Your task to perform on an android device: Open CNN.com Image 0: 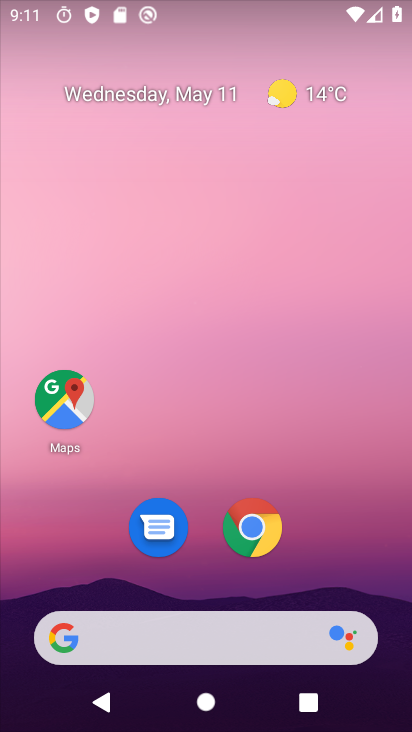
Step 0: drag from (249, 527) to (265, 89)
Your task to perform on an android device: Open CNN.com Image 1: 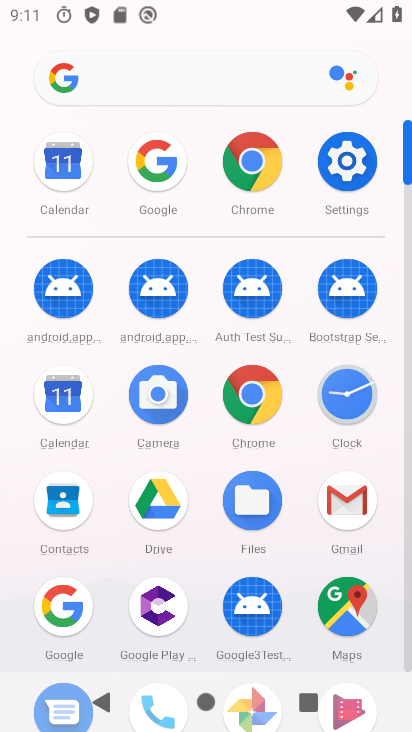
Step 1: click (259, 181)
Your task to perform on an android device: Open CNN.com Image 2: 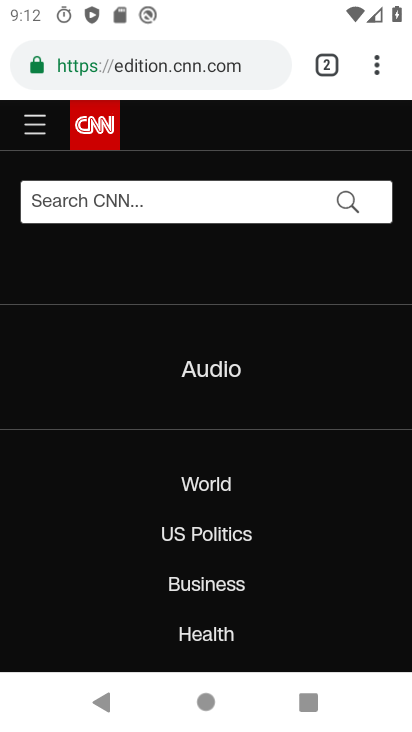
Step 2: task complete